Your task to perform on an android device: change the clock display to show seconds Image 0: 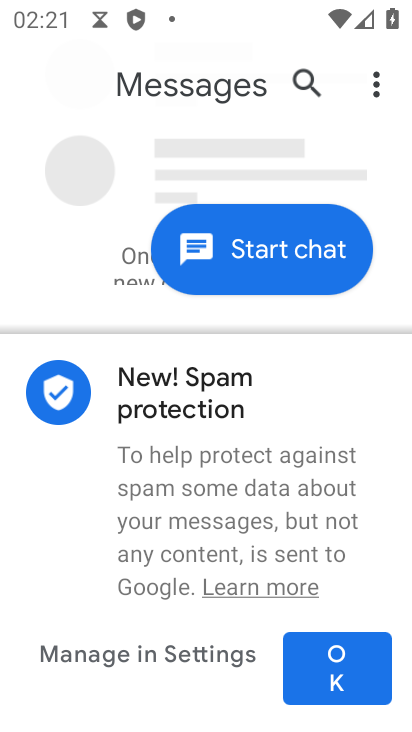
Step 0: press home button
Your task to perform on an android device: change the clock display to show seconds Image 1: 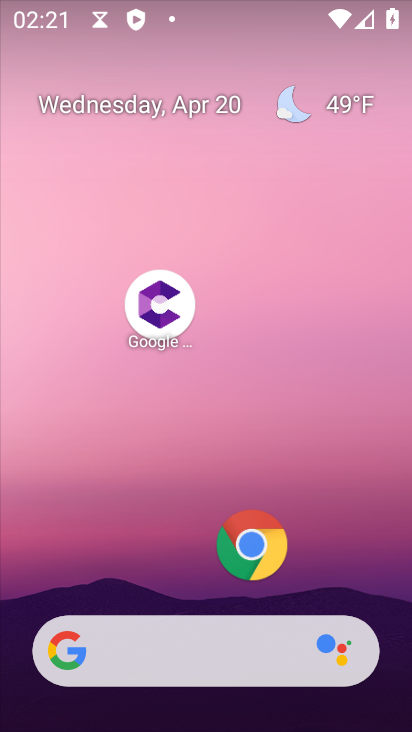
Step 1: drag from (185, 575) to (269, 40)
Your task to perform on an android device: change the clock display to show seconds Image 2: 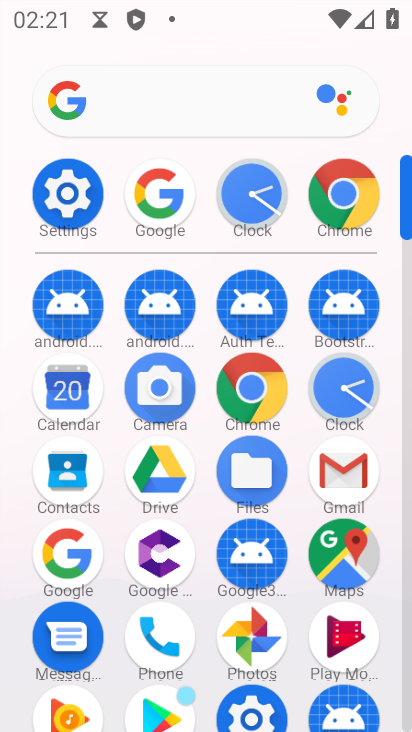
Step 2: click (345, 390)
Your task to perform on an android device: change the clock display to show seconds Image 3: 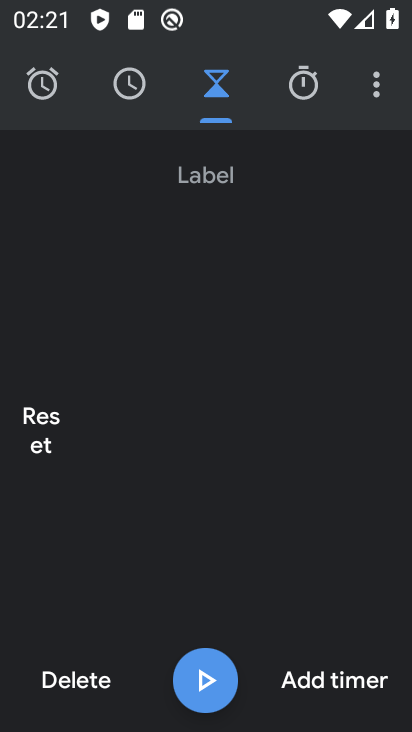
Step 3: click (375, 82)
Your task to perform on an android device: change the clock display to show seconds Image 4: 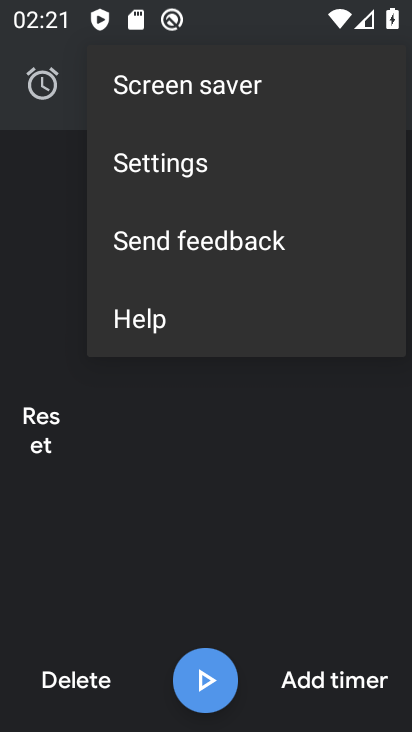
Step 4: click (201, 180)
Your task to perform on an android device: change the clock display to show seconds Image 5: 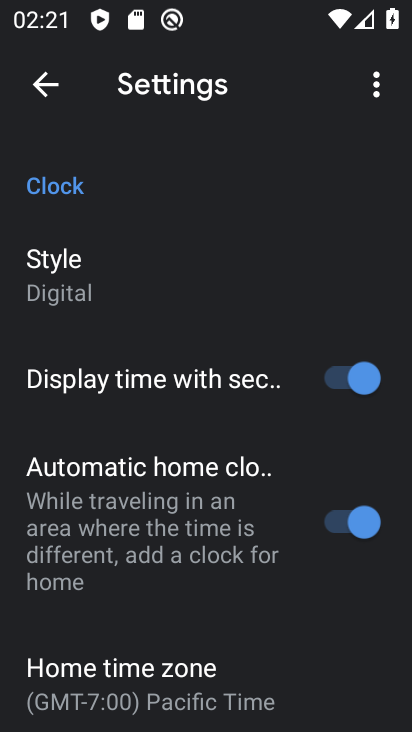
Step 5: click (370, 386)
Your task to perform on an android device: change the clock display to show seconds Image 6: 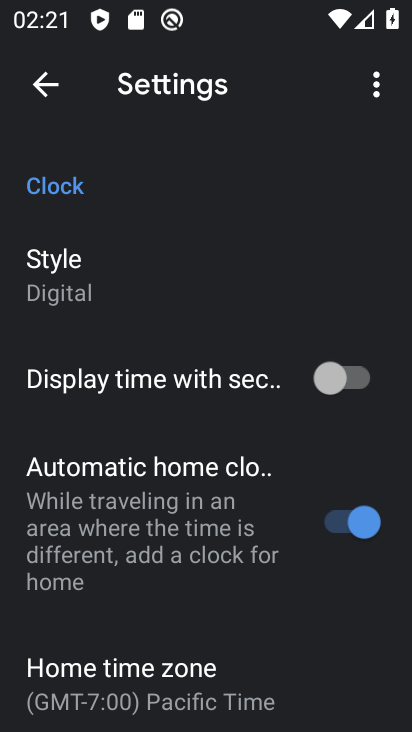
Step 6: task complete